Your task to perform on an android device: read, delete, or share a saved page in the chrome app Image 0: 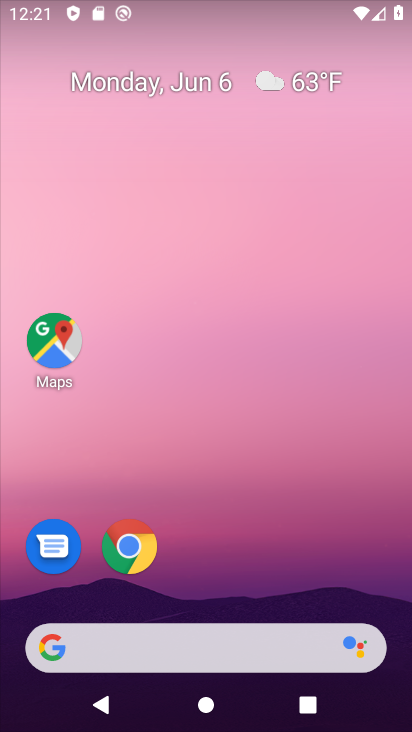
Step 0: click (138, 548)
Your task to perform on an android device: read, delete, or share a saved page in the chrome app Image 1: 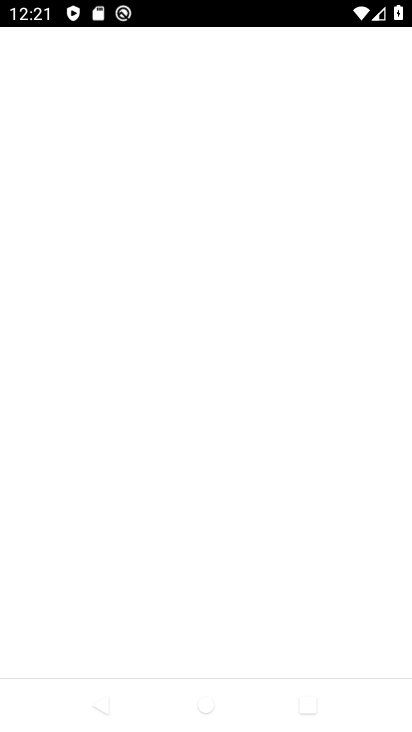
Step 1: click (144, 539)
Your task to perform on an android device: read, delete, or share a saved page in the chrome app Image 2: 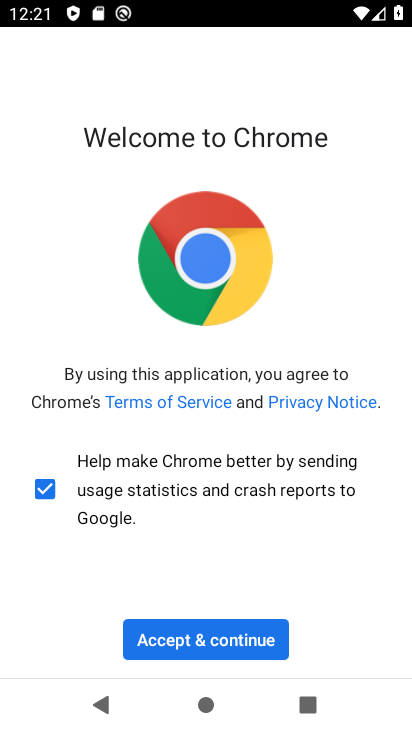
Step 2: click (207, 644)
Your task to perform on an android device: read, delete, or share a saved page in the chrome app Image 3: 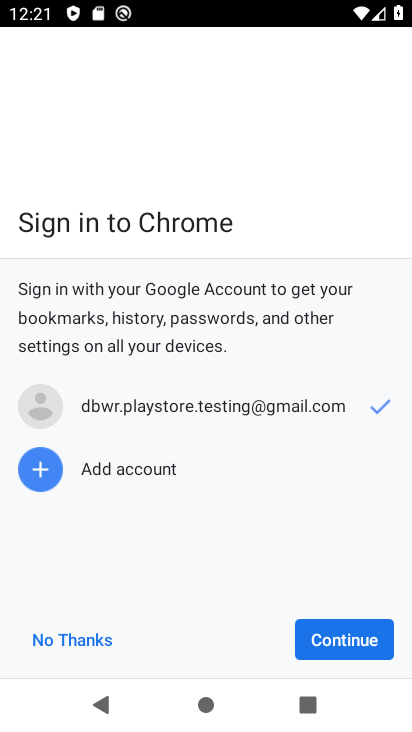
Step 3: click (339, 632)
Your task to perform on an android device: read, delete, or share a saved page in the chrome app Image 4: 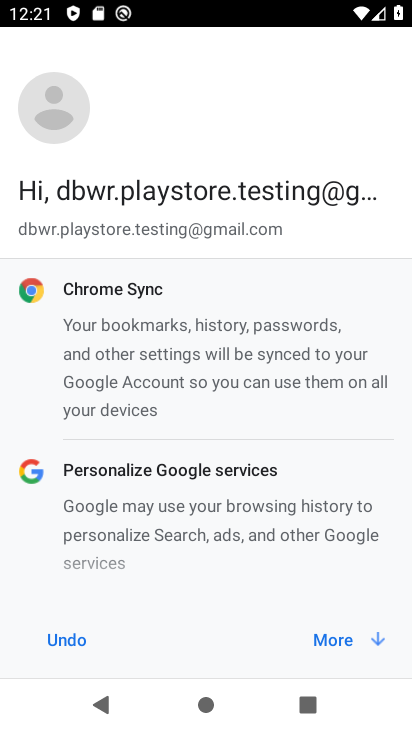
Step 4: click (340, 642)
Your task to perform on an android device: read, delete, or share a saved page in the chrome app Image 5: 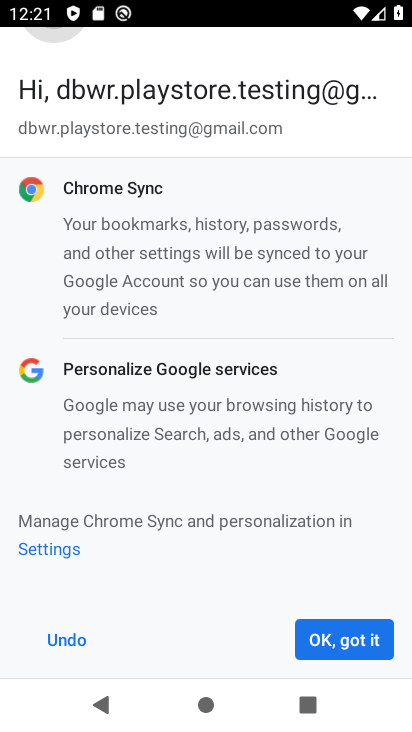
Step 5: click (358, 633)
Your task to perform on an android device: read, delete, or share a saved page in the chrome app Image 6: 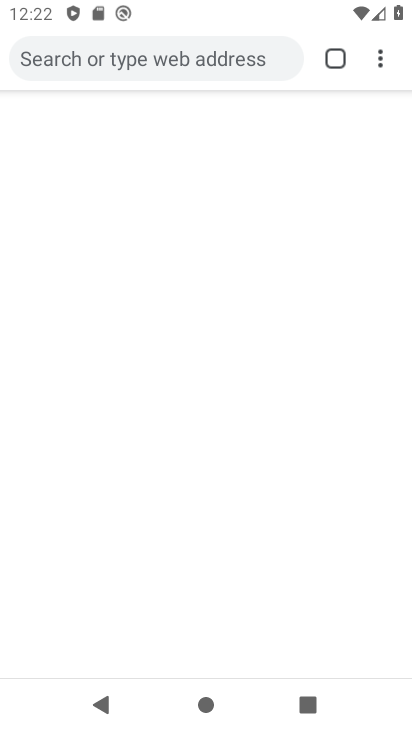
Step 6: task complete